Your task to perform on an android device: turn off notifications settings in the gmail app Image 0: 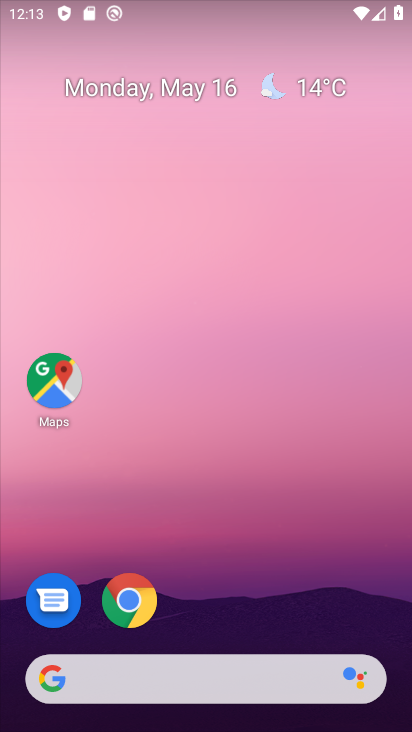
Step 0: drag from (234, 593) to (242, 78)
Your task to perform on an android device: turn off notifications settings in the gmail app Image 1: 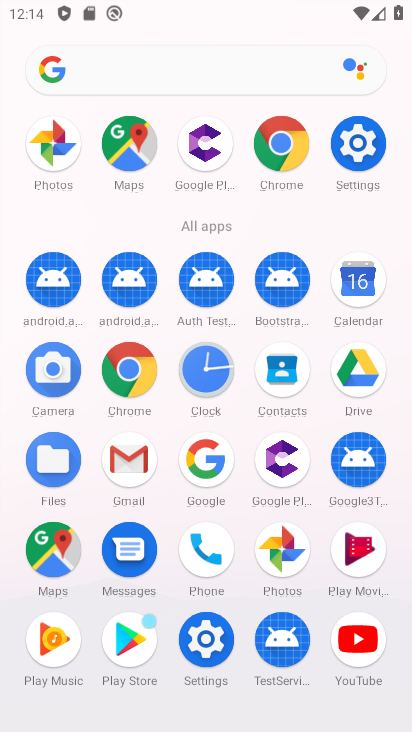
Step 1: click (131, 458)
Your task to perform on an android device: turn off notifications settings in the gmail app Image 2: 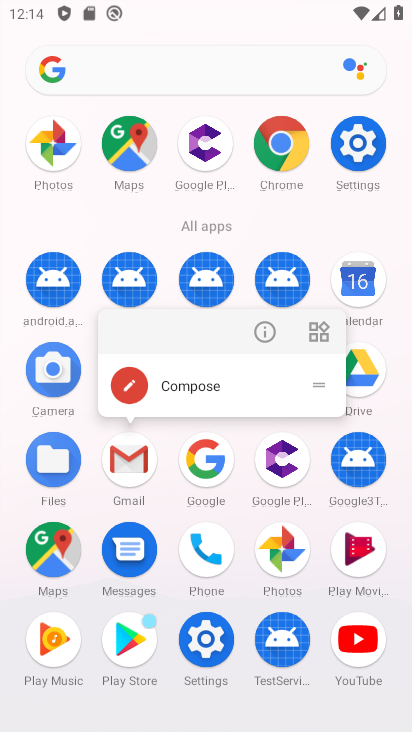
Step 2: click (262, 332)
Your task to perform on an android device: turn off notifications settings in the gmail app Image 3: 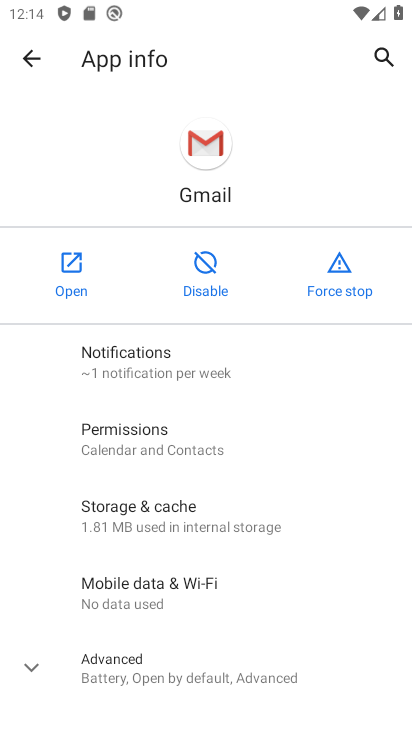
Step 3: click (151, 355)
Your task to perform on an android device: turn off notifications settings in the gmail app Image 4: 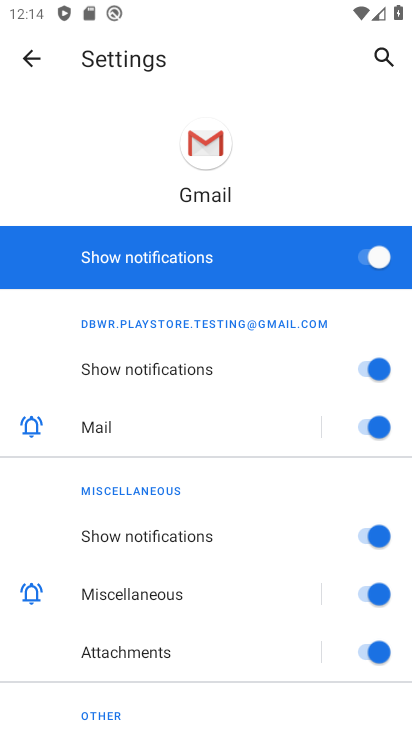
Step 4: click (364, 259)
Your task to perform on an android device: turn off notifications settings in the gmail app Image 5: 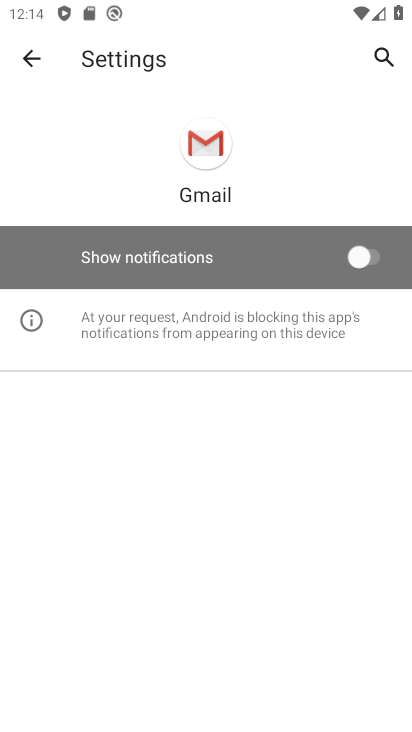
Step 5: task complete